Your task to perform on an android device: turn on wifi Image 0: 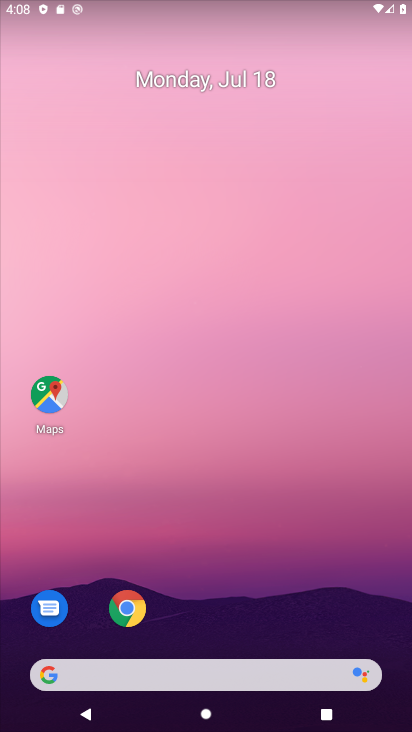
Step 0: drag from (284, 442) to (186, 55)
Your task to perform on an android device: turn on wifi Image 1: 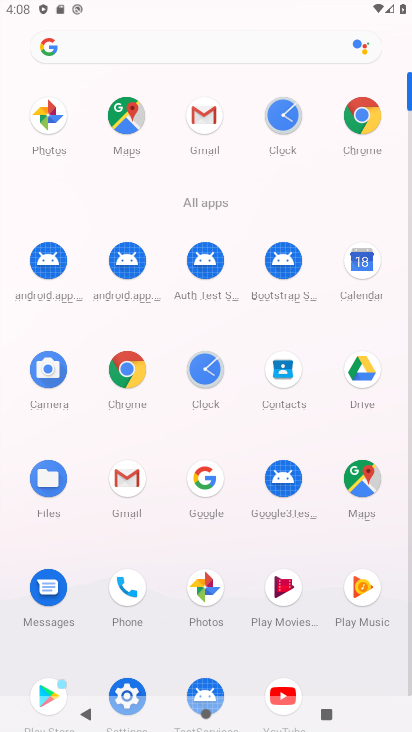
Step 1: click (131, 686)
Your task to perform on an android device: turn on wifi Image 2: 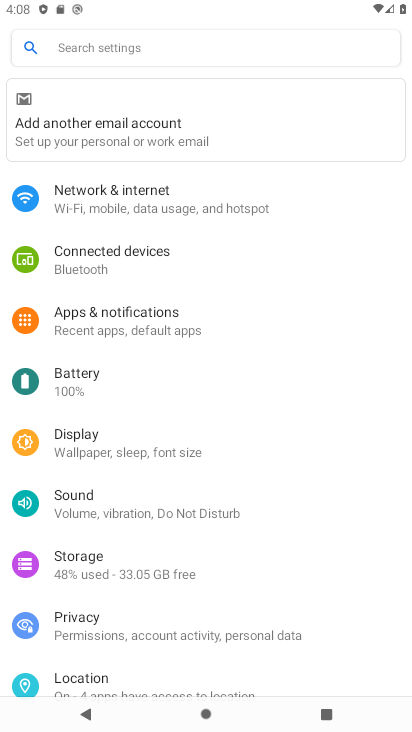
Step 2: click (129, 195)
Your task to perform on an android device: turn on wifi Image 3: 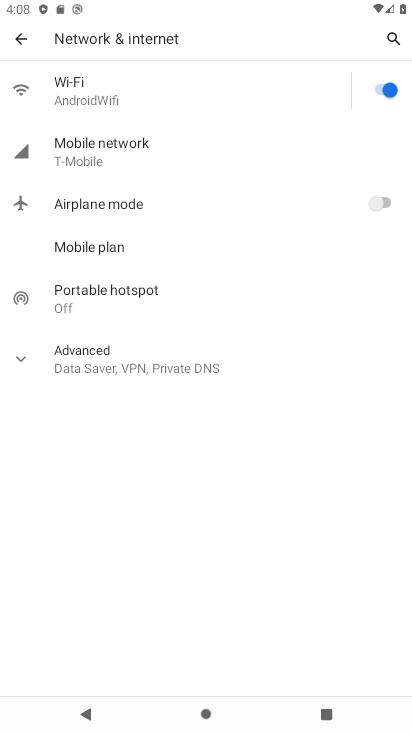
Step 3: click (128, 104)
Your task to perform on an android device: turn on wifi Image 4: 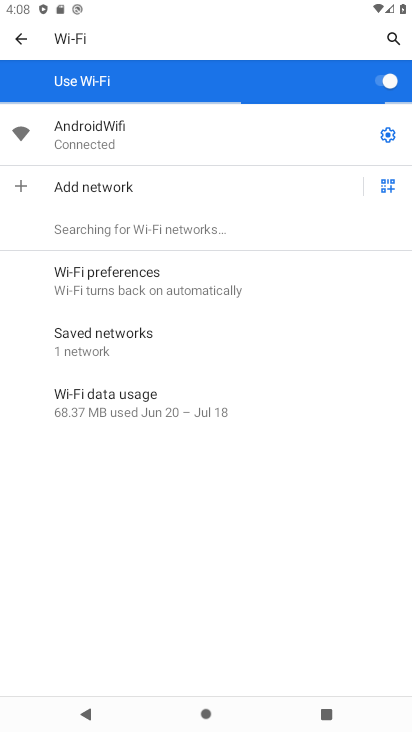
Step 4: task complete